Your task to perform on an android device: Open Google Maps and go to "Timeline" Image 0: 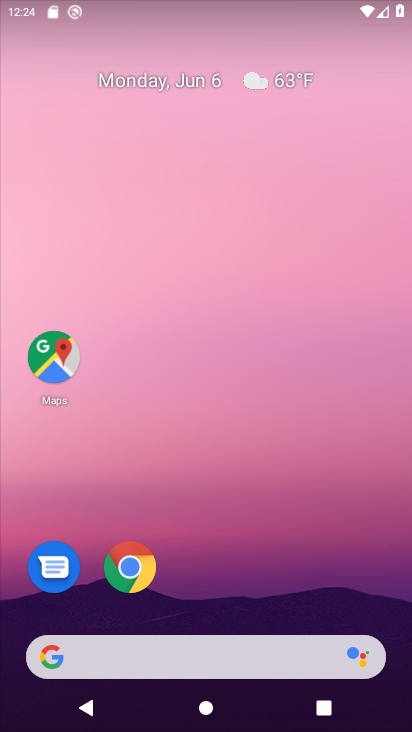
Step 0: drag from (237, 716) to (266, 9)
Your task to perform on an android device: Open Google Maps and go to "Timeline" Image 1: 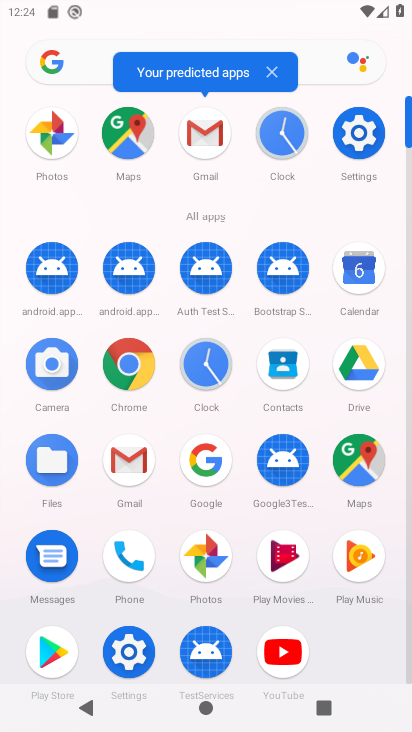
Step 1: click (359, 464)
Your task to perform on an android device: Open Google Maps and go to "Timeline" Image 2: 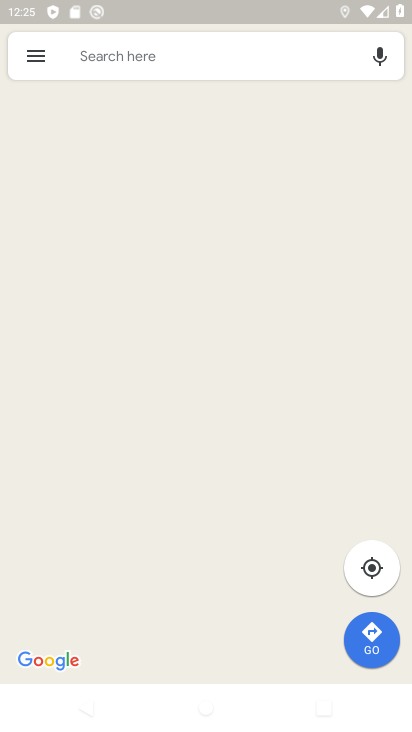
Step 2: click (30, 57)
Your task to perform on an android device: Open Google Maps and go to "Timeline" Image 3: 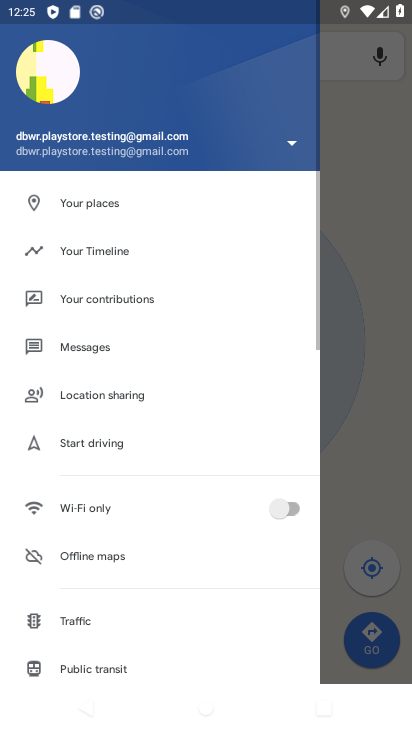
Step 3: click (110, 248)
Your task to perform on an android device: Open Google Maps and go to "Timeline" Image 4: 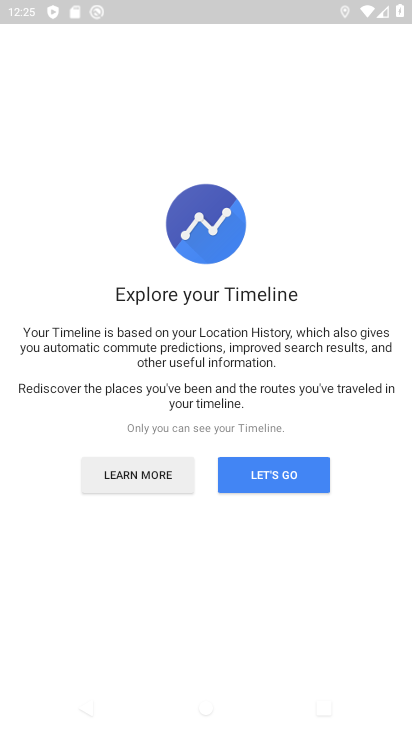
Step 4: click (279, 478)
Your task to perform on an android device: Open Google Maps and go to "Timeline" Image 5: 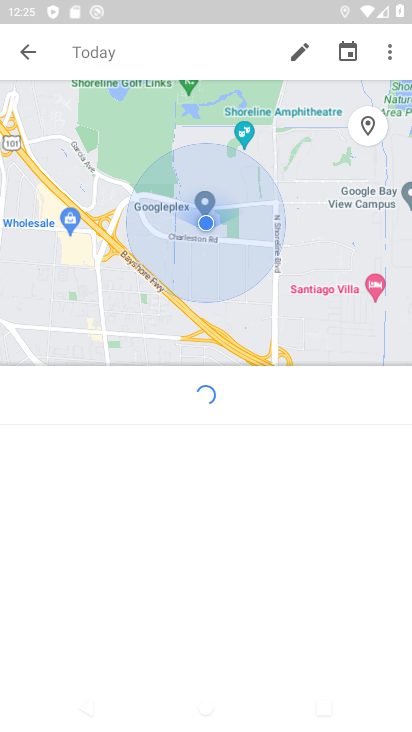
Step 5: task complete